Your task to perform on an android device: install app "YouTube Kids" Image 0: 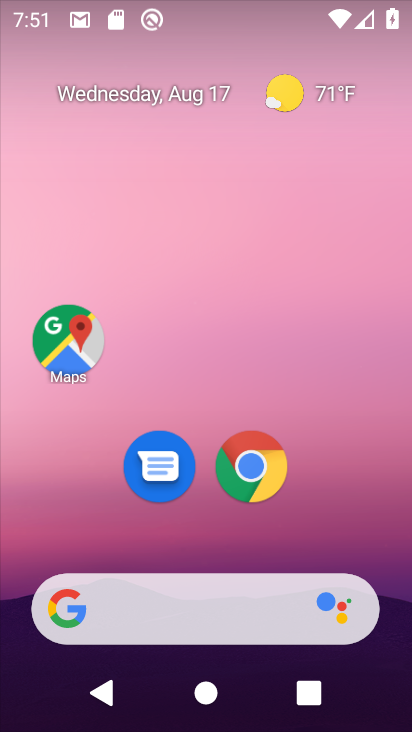
Step 0: drag from (195, 557) to (217, 14)
Your task to perform on an android device: install app "YouTube Kids" Image 1: 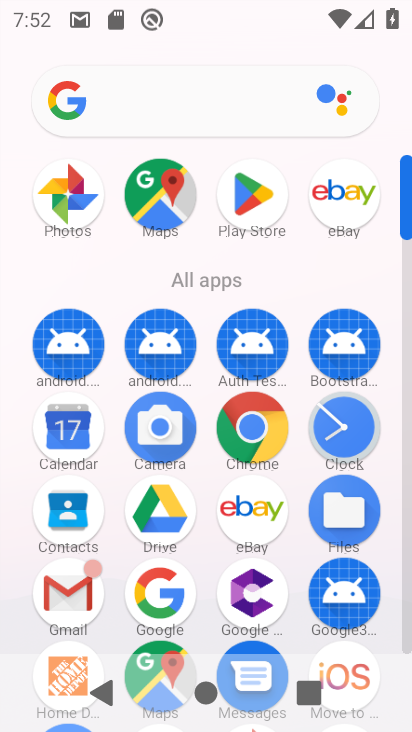
Step 1: click (260, 207)
Your task to perform on an android device: install app "YouTube Kids" Image 2: 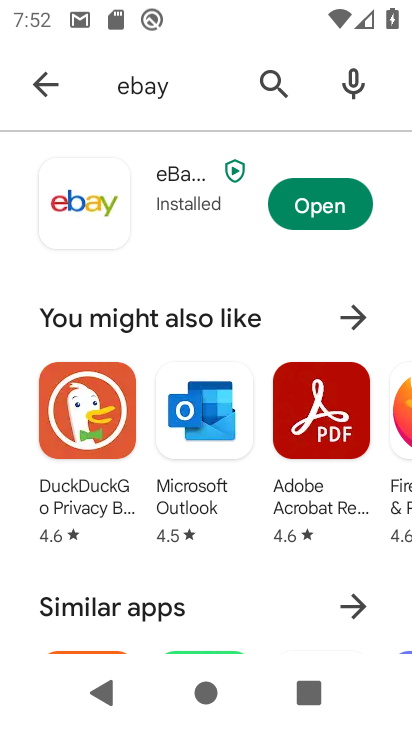
Step 2: click (145, 99)
Your task to perform on an android device: install app "YouTube Kids" Image 3: 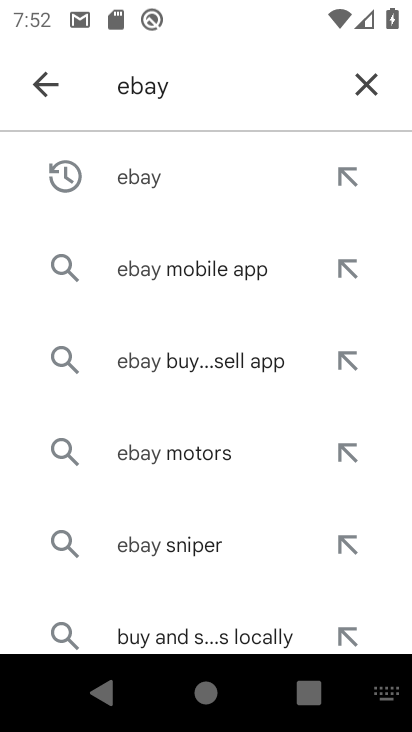
Step 3: click (370, 86)
Your task to perform on an android device: install app "YouTube Kids" Image 4: 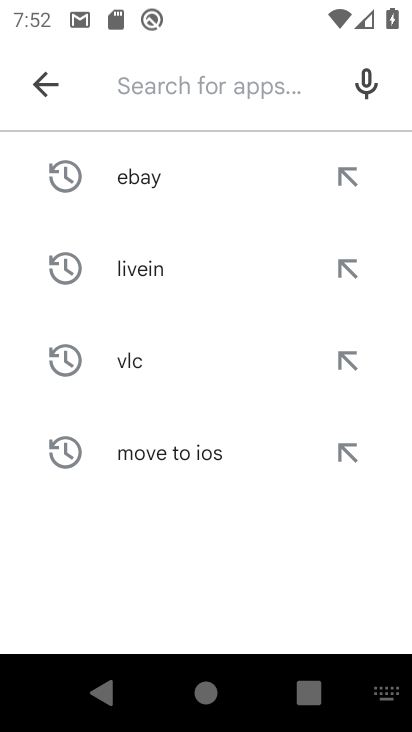
Step 4: type "youtube Kids"
Your task to perform on an android device: install app "YouTube Kids" Image 5: 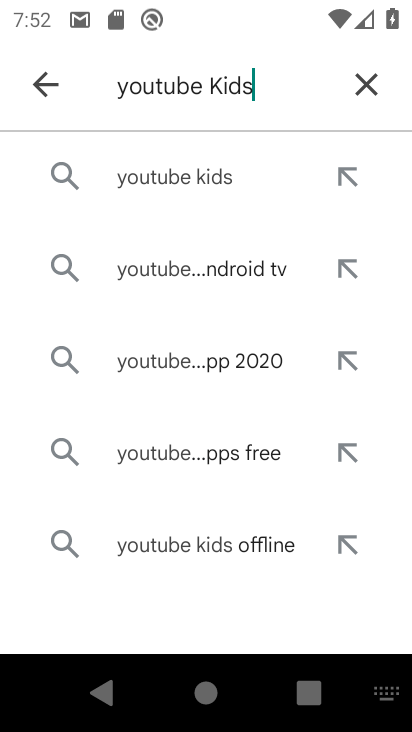
Step 5: click (175, 196)
Your task to perform on an android device: install app "YouTube Kids" Image 6: 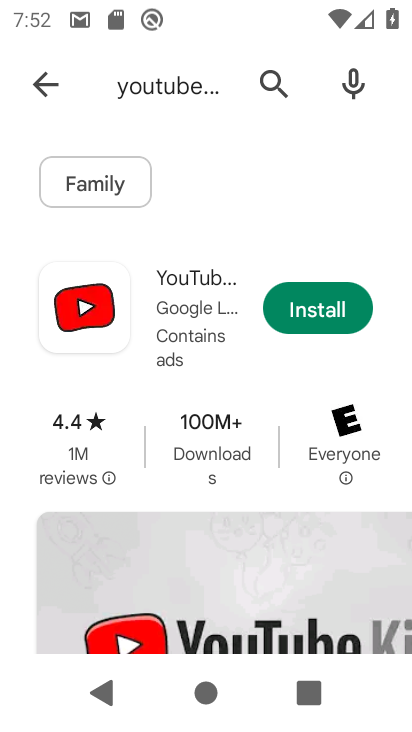
Step 6: click (323, 316)
Your task to perform on an android device: install app "YouTube Kids" Image 7: 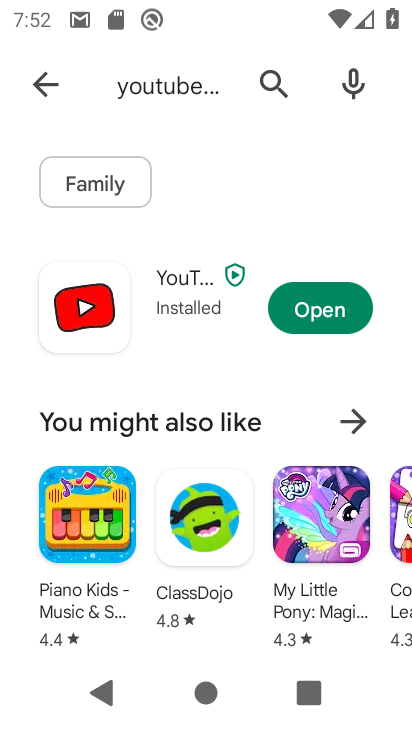
Step 7: task complete